Your task to perform on an android device: set an alarm Image 0: 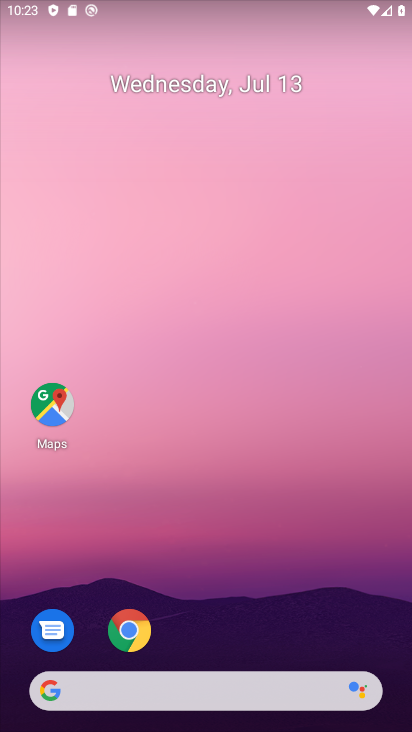
Step 0: drag from (222, 638) to (240, 200)
Your task to perform on an android device: set an alarm Image 1: 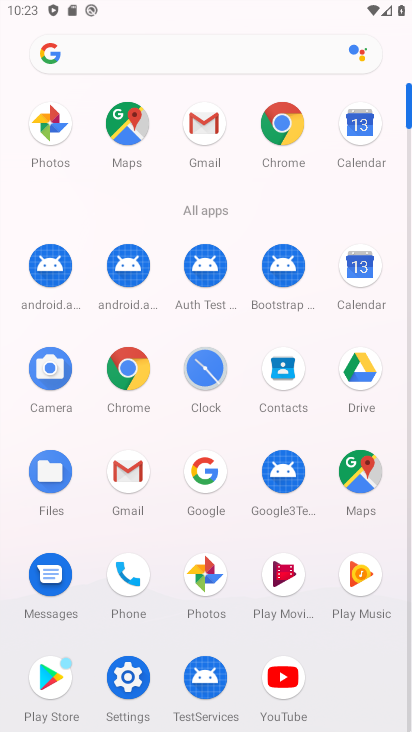
Step 1: click (189, 373)
Your task to perform on an android device: set an alarm Image 2: 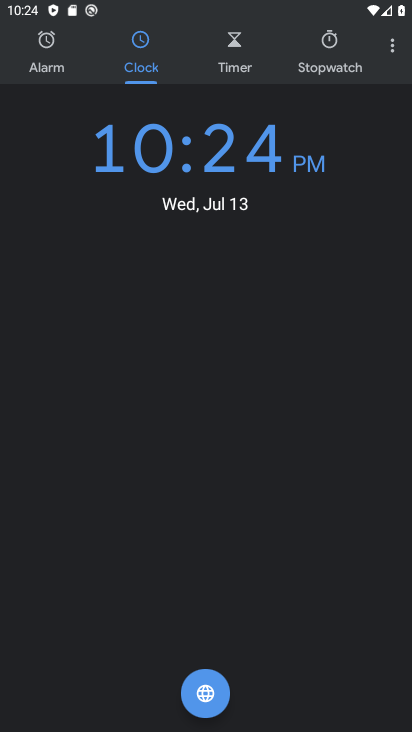
Step 2: click (35, 58)
Your task to perform on an android device: set an alarm Image 3: 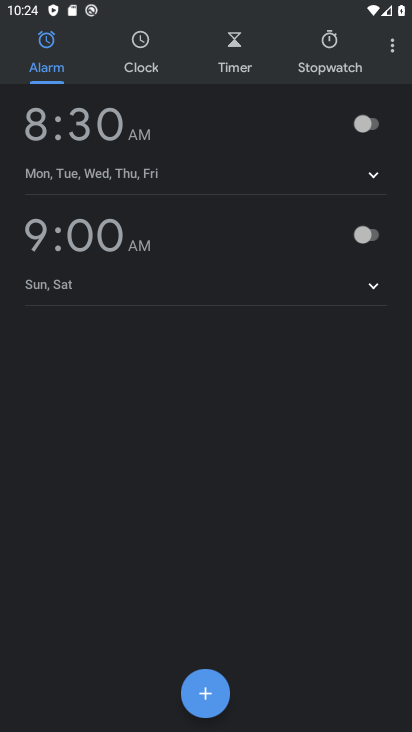
Step 3: click (215, 686)
Your task to perform on an android device: set an alarm Image 4: 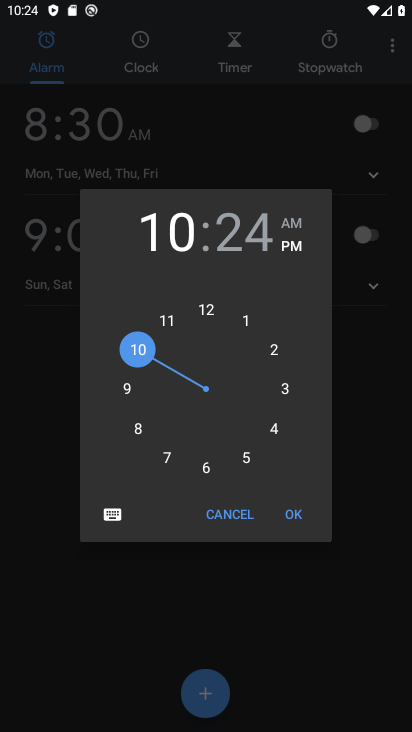
Step 4: click (296, 521)
Your task to perform on an android device: set an alarm Image 5: 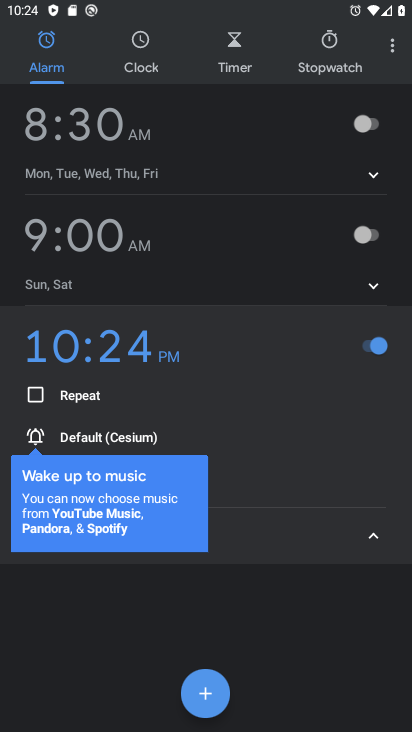
Step 5: task complete